Your task to perform on an android device: Check the weather Image 0: 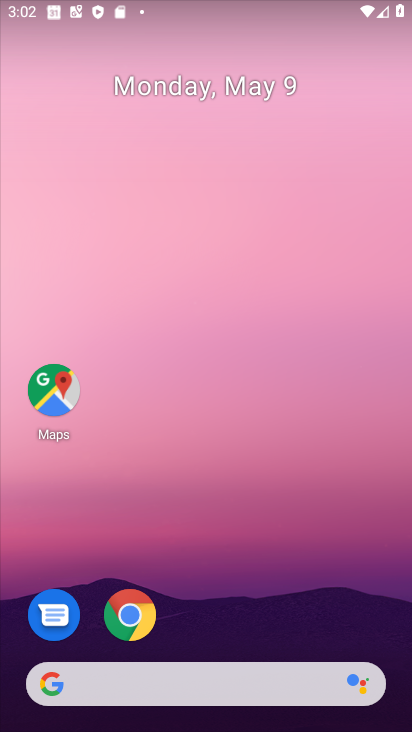
Step 0: drag from (171, 528) to (193, 290)
Your task to perform on an android device: Check the weather Image 1: 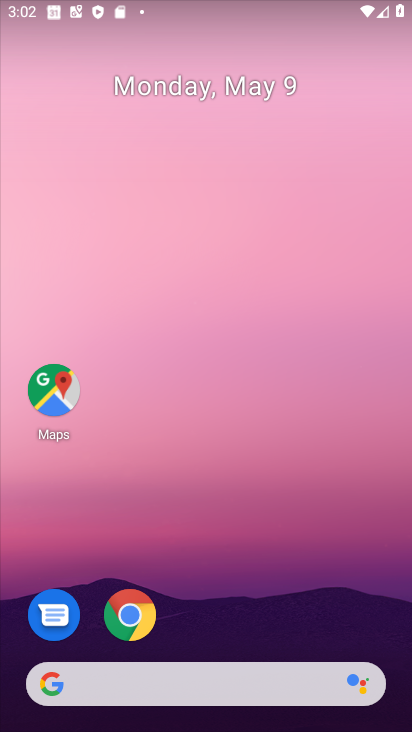
Step 1: drag from (230, 506) to (235, 115)
Your task to perform on an android device: Check the weather Image 2: 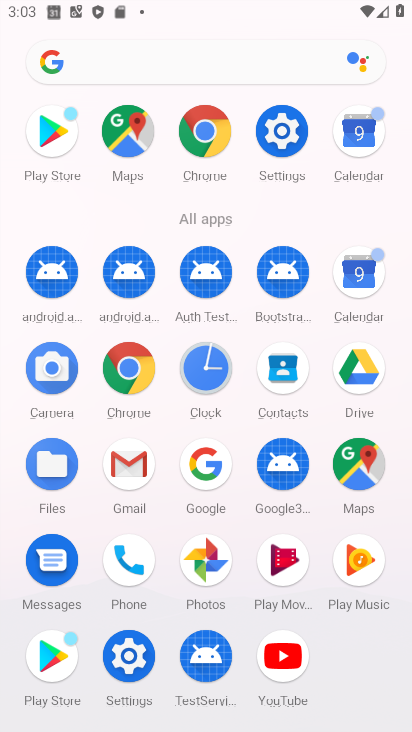
Step 2: click (148, 367)
Your task to perform on an android device: Check the weather Image 3: 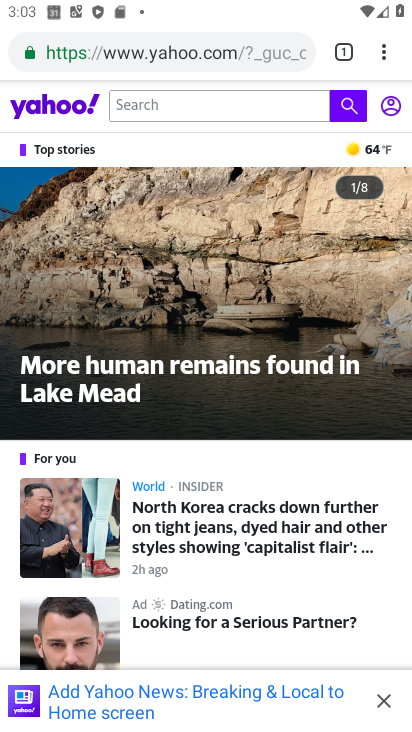
Step 3: click (376, 56)
Your task to perform on an android device: Check the weather Image 4: 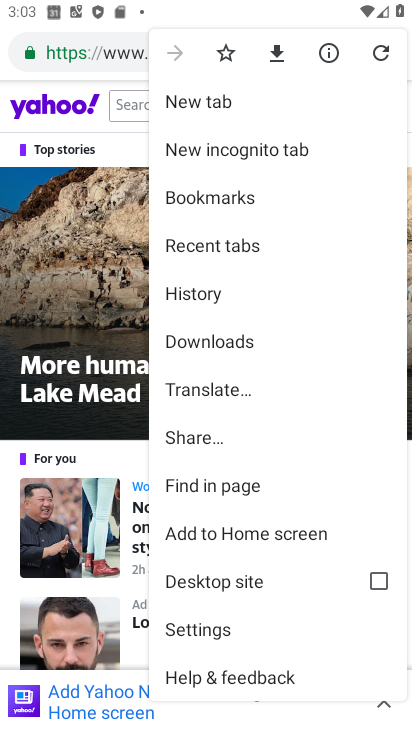
Step 4: click (212, 108)
Your task to perform on an android device: Check the weather Image 5: 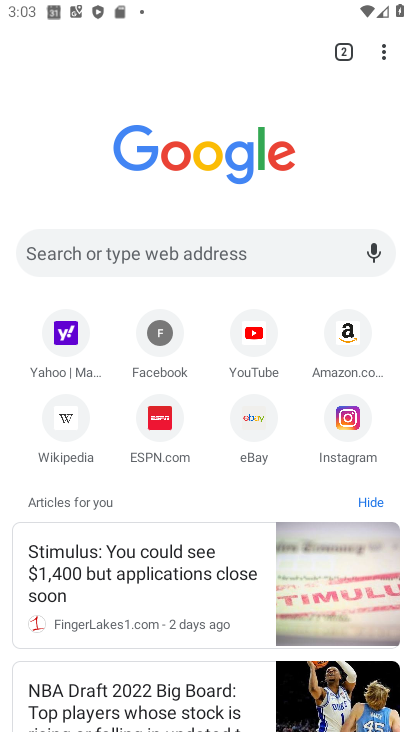
Step 5: click (89, 232)
Your task to perform on an android device: Check the weather Image 6: 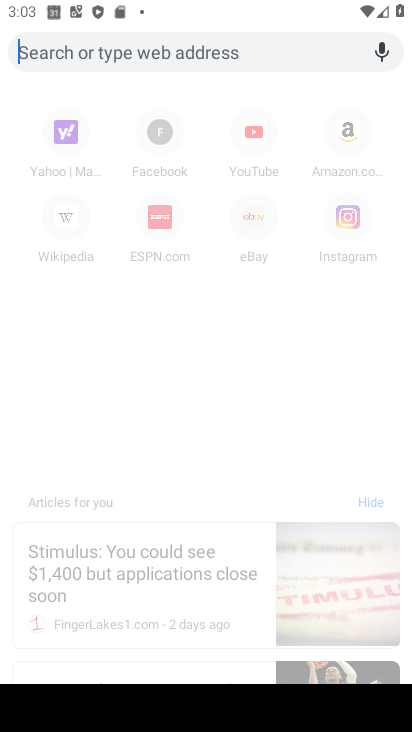
Step 6: click (235, 32)
Your task to perform on an android device: Check the weather Image 7: 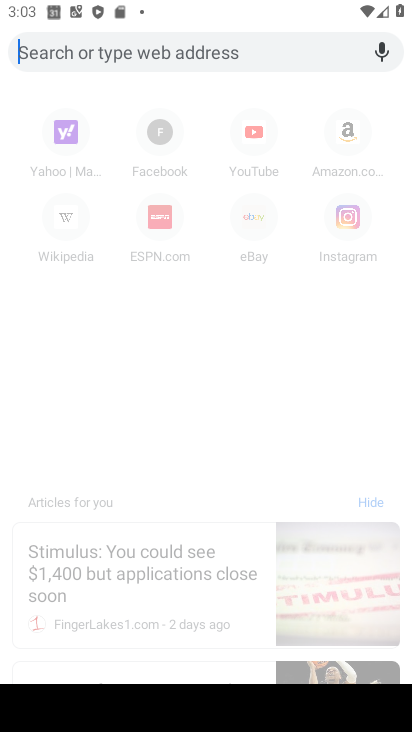
Step 7: click (212, 49)
Your task to perform on an android device: Check the weather Image 8: 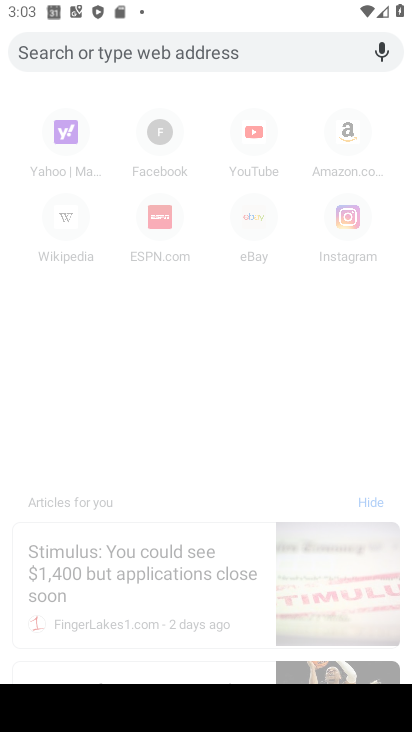
Step 8: type "Check the weather"
Your task to perform on an android device: Check the weather Image 9: 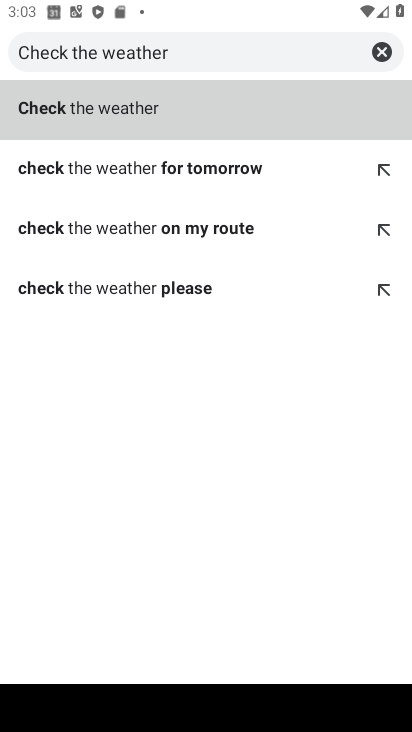
Step 9: click (233, 110)
Your task to perform on an android device: Check the weather Image 10: 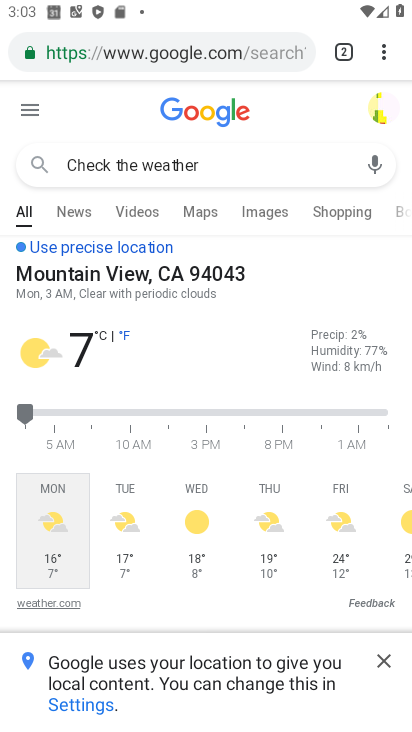
Step 10: task complete